Your task to perform on an android device: check battery use Image 0: 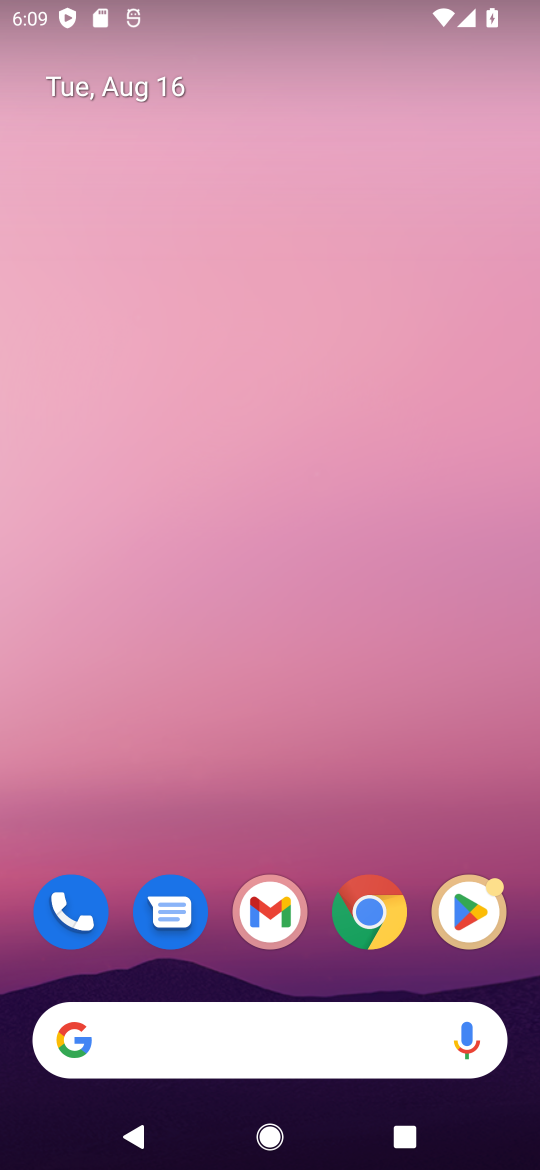
Step 0: drag from (422, 969) to (387, 62)
Your task to perform on an android device: check battery use Image 1: 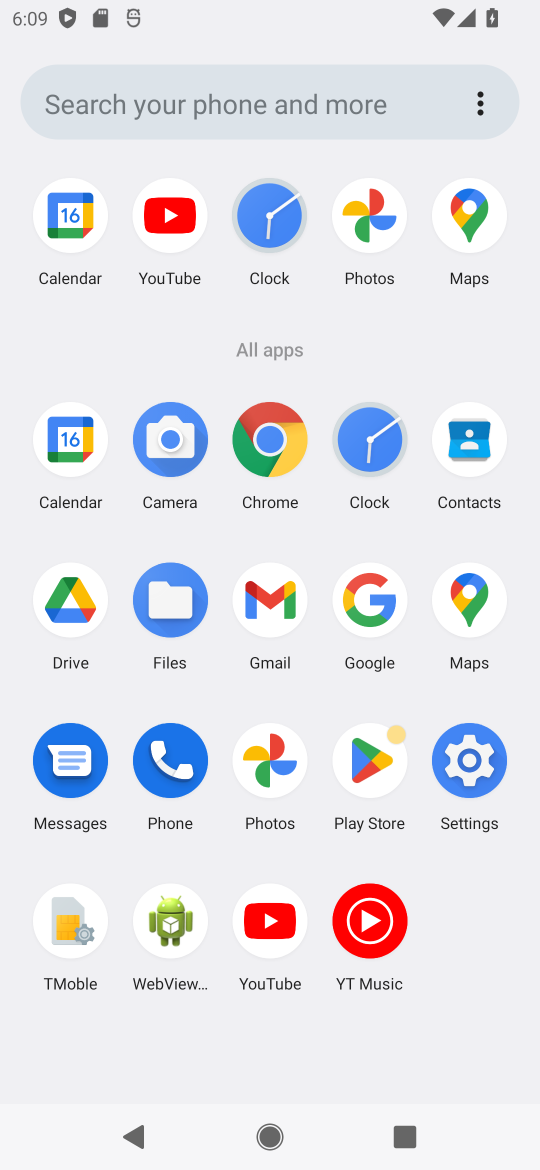
Step 1: click (472, 763)
Your task to perform on an android device: check battery use Image 2: 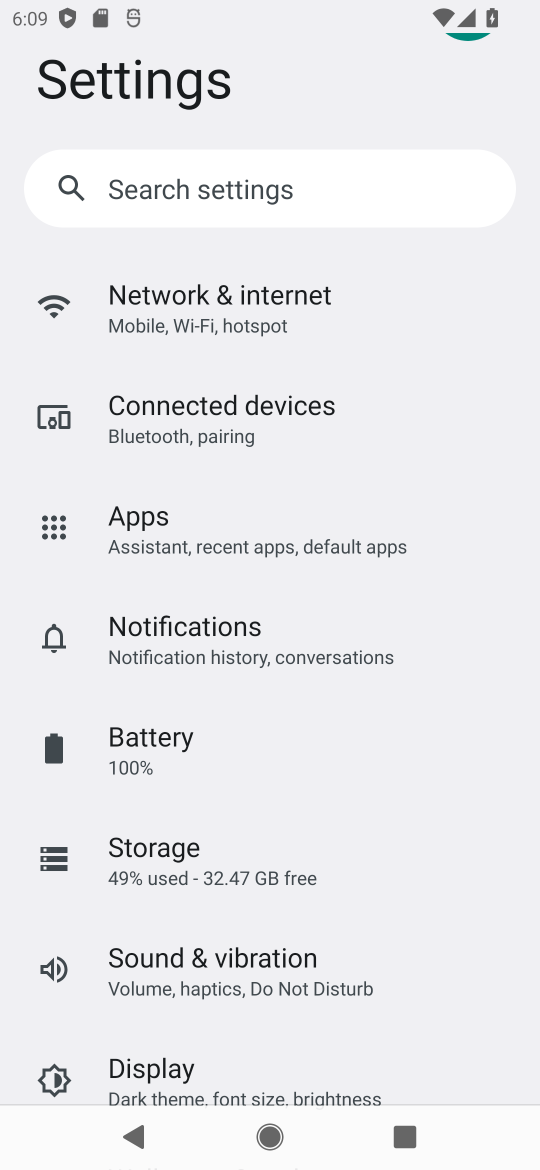
Step 2: click (128, 739)
Your task to perform on an android device: check battery use Image 3: 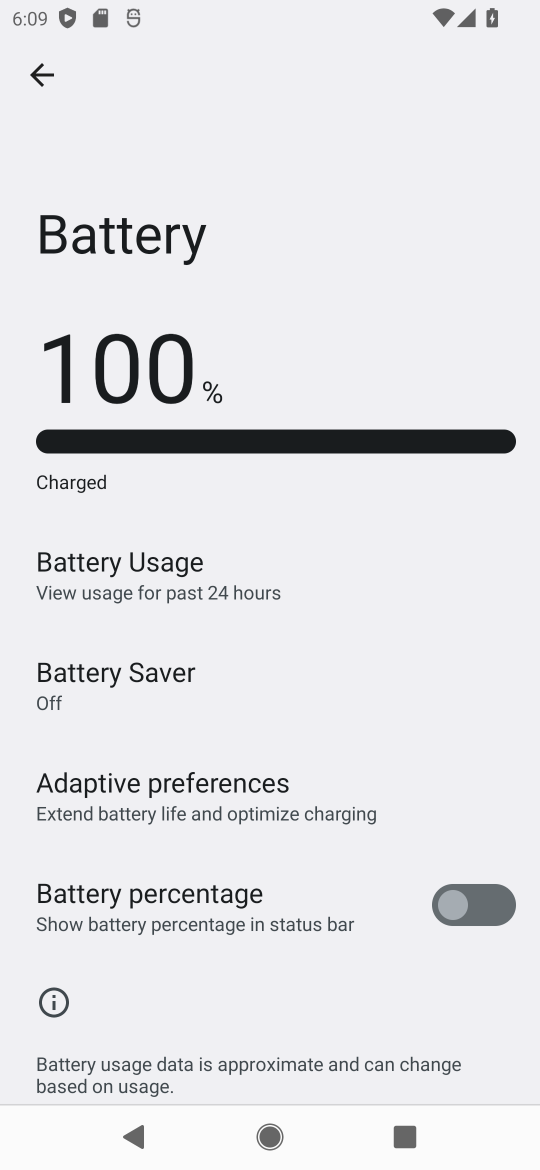
Step 3: click (97, 572)
Your task to perform on an android device: check battery use Image 4: 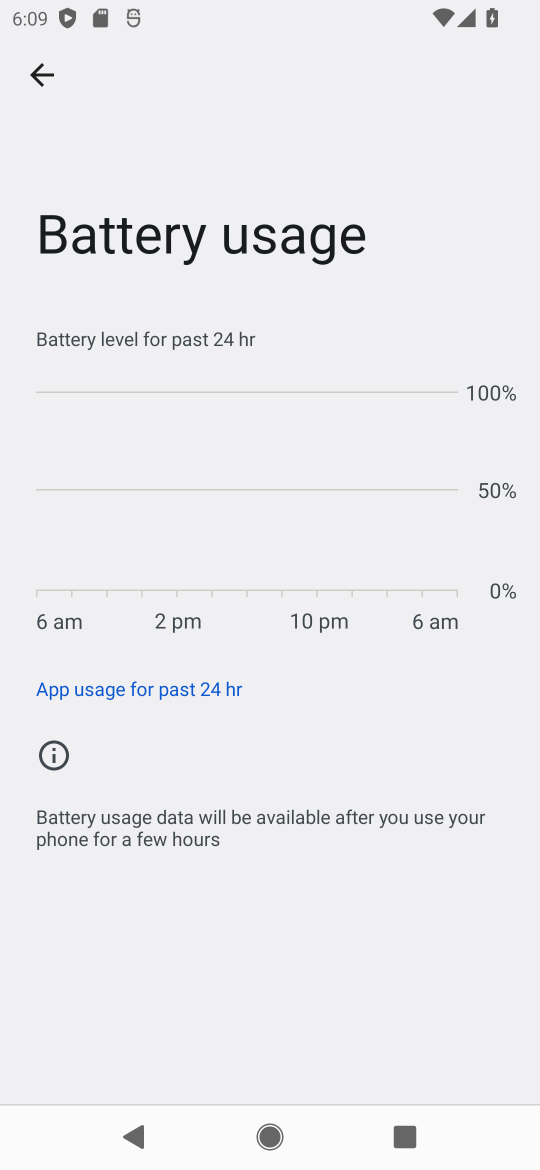
Step 4: task complete